Your task to perform on an android device: Go to sound settings Image 0: 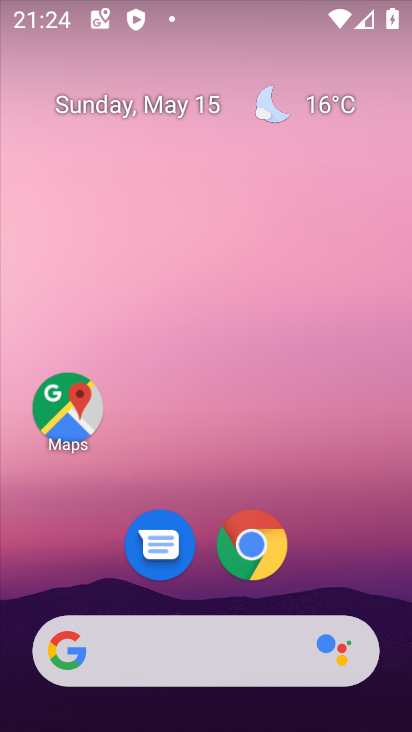
Step 0: drag from (329, 590) to (262, 245)
Your task to perform on an android device: Go to sound settings Image 1: 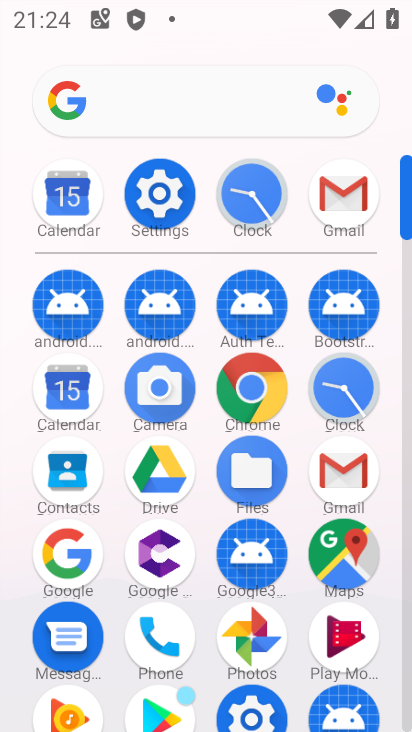
Step 1: click (160, 192)
Your task to perform on an android device: Go to sound settings Image 2: 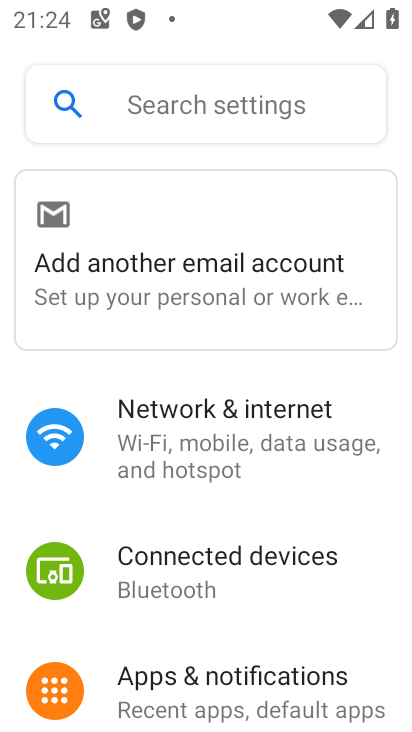
Step 2: drag from (185, 529) to (238, 364)
Your task to perform on an android device: Go to sound settings Image 3: 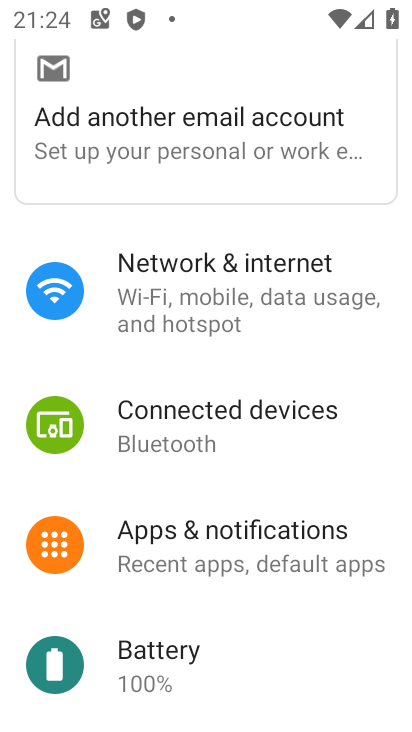
Step 3: drag from (190, 605) to (237, 492)
Your task to perform on an android device: Go to sound settings Image 4: 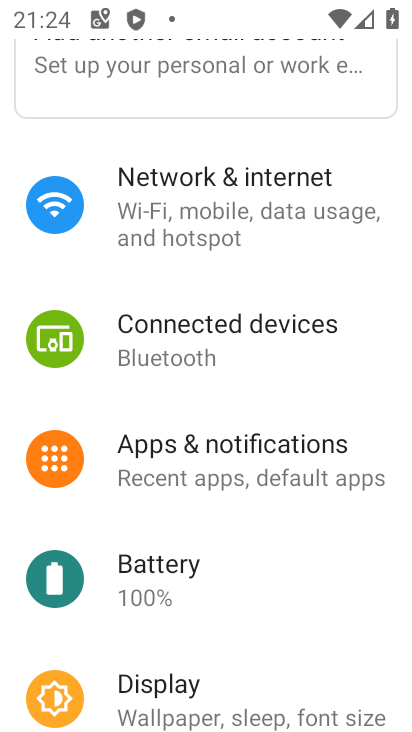
Step 4: drag from (206, 633) to (254, 487)
Your task to perform on an android device: Go to sound settings Image 5: 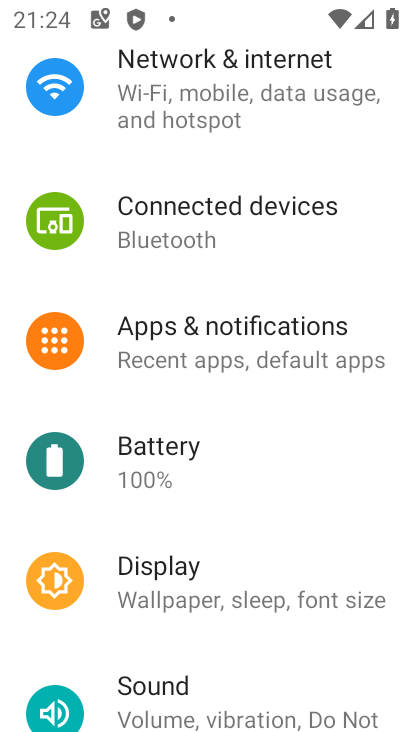
Step 5: drag from (240, 664) to (259, 506)
Your task to perform on an android device: Go to sound settings Image 6: 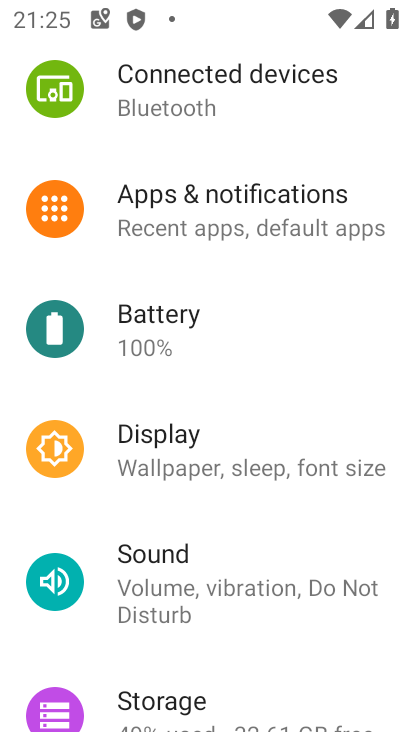
Step 6: click (169, 593)
Your task to perform on an android device: Go to sound settings Image 7: 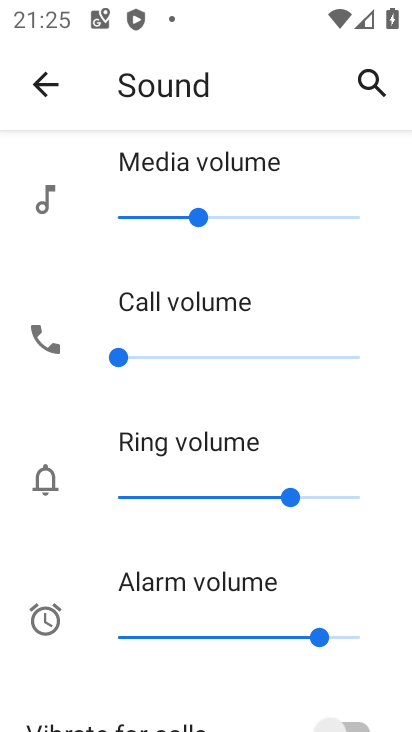
Step 7: task complete